Your task to perform on an android device: Open maps Image 0: 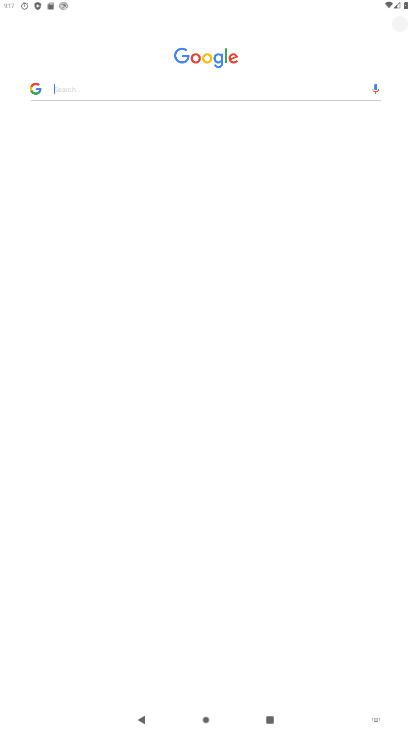
Step 0: click (298, 530)
Your task to perform on an android device: Open maps Image 1: 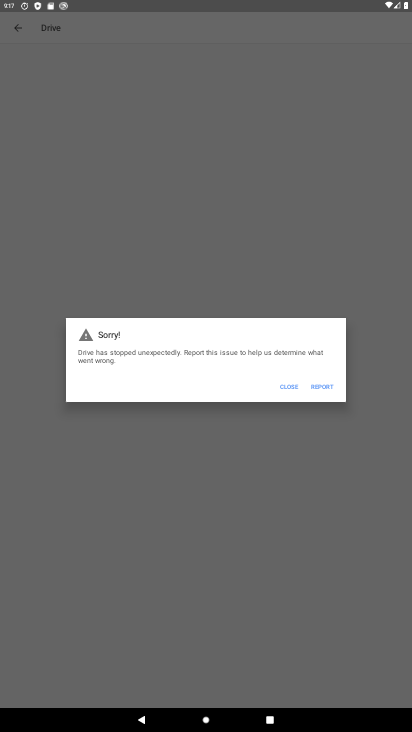
Step 1: drag from (288, 0) to (256, 382)
Your task to perform on an android device: Open maps Image 2: 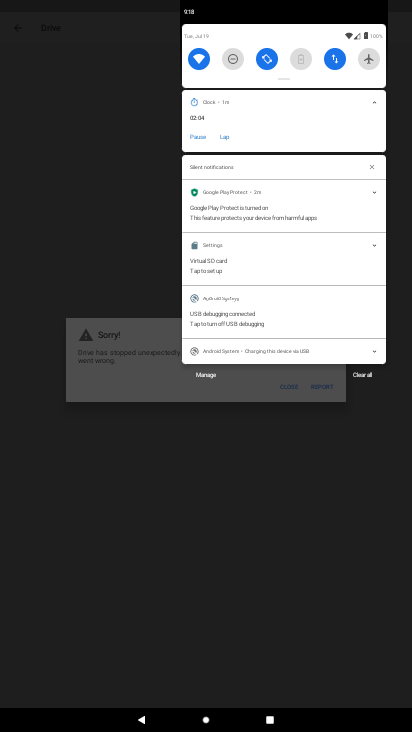
Step 2: click (368, 60)
Your task to perform on an android device: Open maps Image 3: 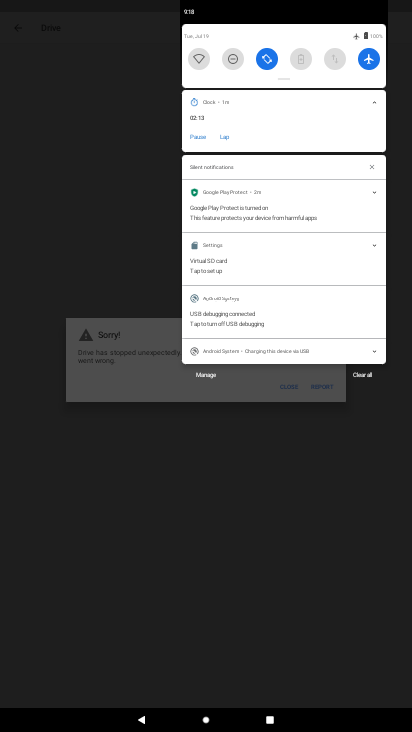
Step 3: task complete